Your task to perform on an android device: Open calendar and show me the second week of next month Image 0: 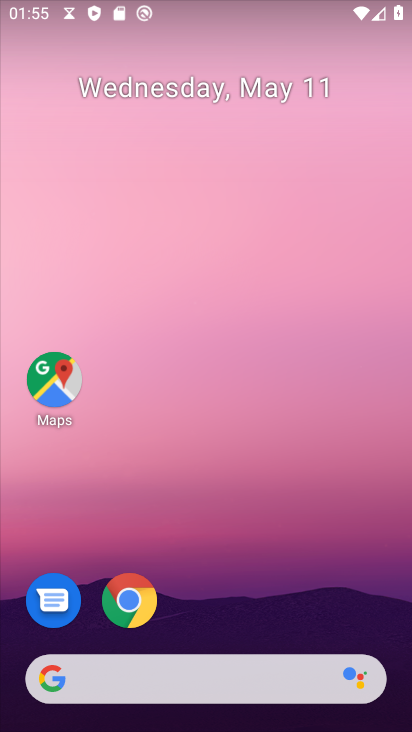
Step 0: drag from (229, 473) to (246, 292)
Your task to perform on an android device: Open calendar and show me the second week of next month Image 1: 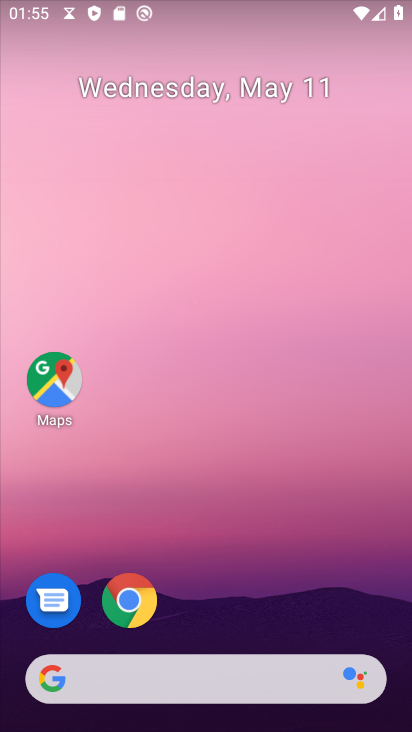
Step 1: drag from (237, 406) to (254, 162)
Your task to perform on an android device: Open calendar and show me the second week of next month Image 2: 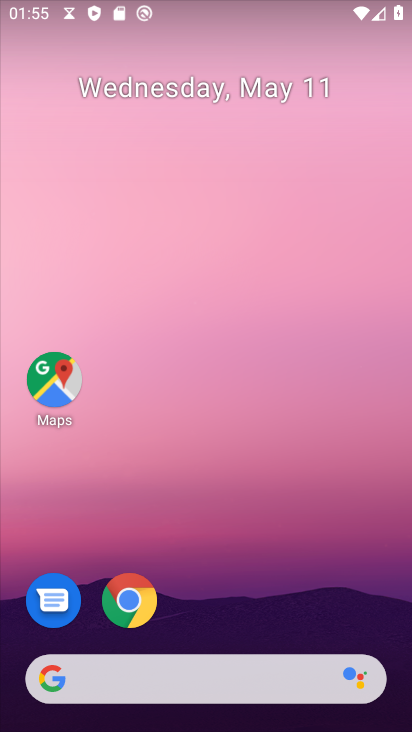
Step 2: drag from (221, 608) to (241, 178)
Your task to perform on an android device: Open calendar and show me the second week of next month Image 3: 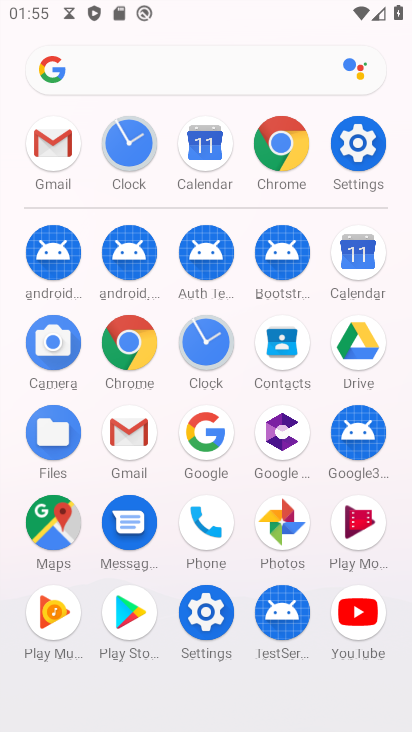
Step 3: click (352, 241)
Your task to perform on an android device: Open calendar and show me the second week of next month Image 4: 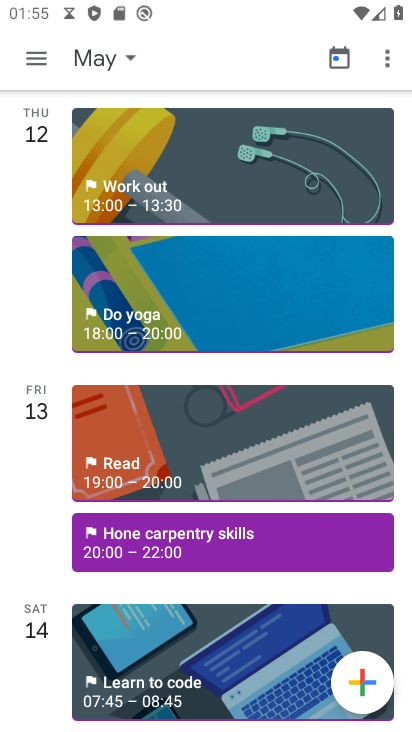
Step 4: click (31, 58)
Your task to perform on an android device: Open calendar and show me the second week of next month Image 5: 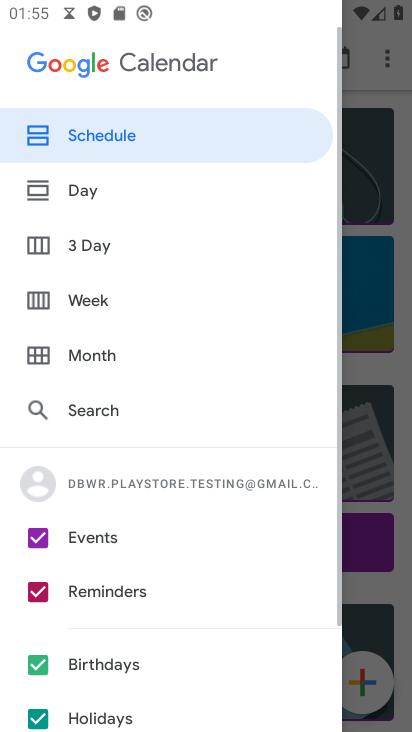
Step 5: click (95, 352)
Your task to perform on an android device: Open calendar and show me the second week of next month Image 6: 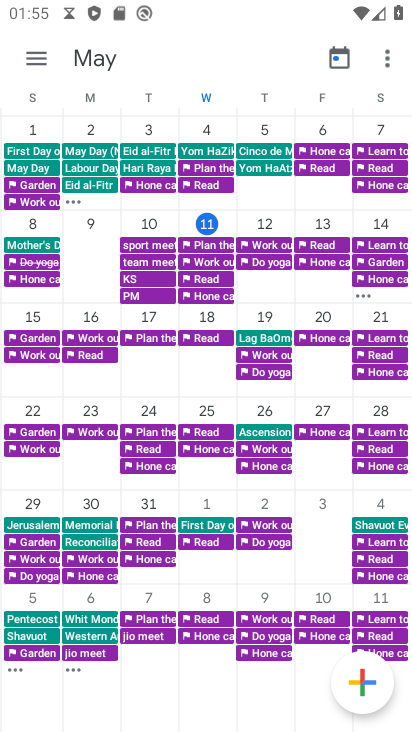
Step 6: task complete